Your task to perform on an android device: make emails show in primary in the gmail app Image 0: 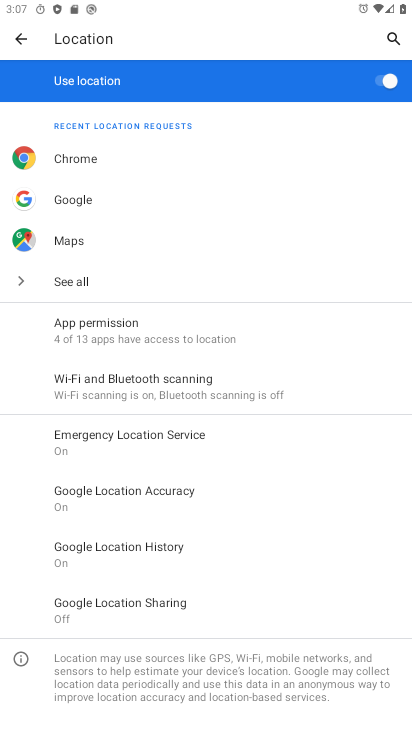
Step 0: press home button
Your task to perform on an android device: make emails show in primary in the gmail app Image 1: 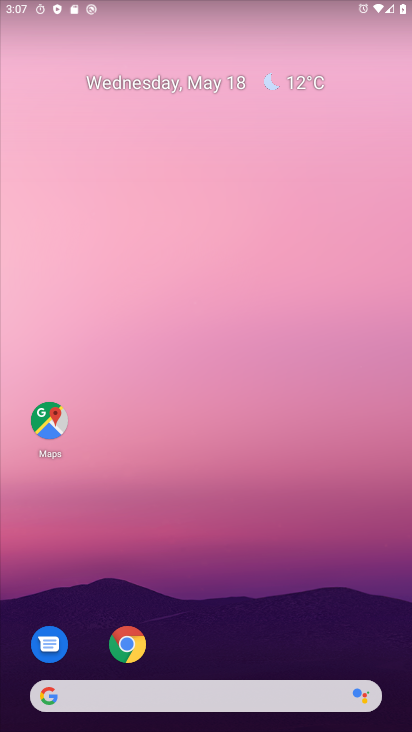
Step 1: drag from (396, 682) to (265, 137)
Your task to perform on an android device: make emails show in primary in the gmail app Image 2: 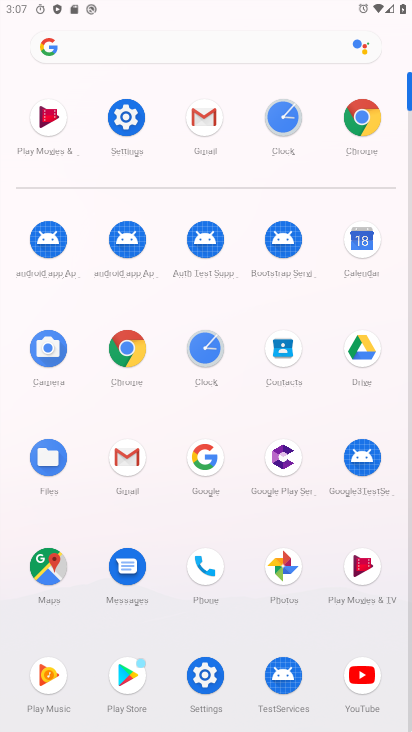
Step 2: click (203, 117)
Your task to perform on an android device: make emails show in primary in the gmail app Image 3: 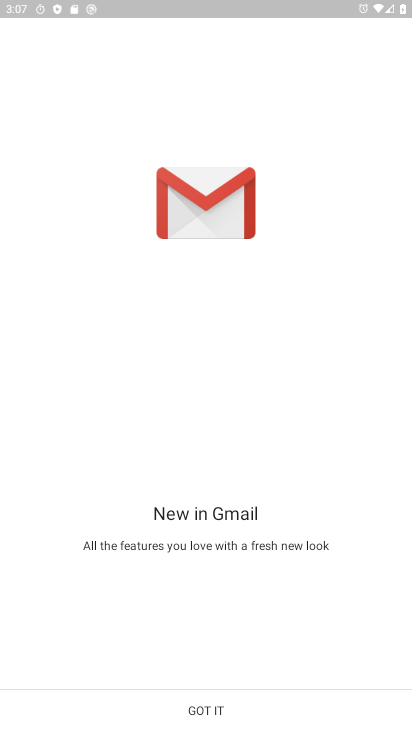
Step 3: click (204, 701)
Your task to perform on an android device: make emails show in primary in the gmail app Image 4: 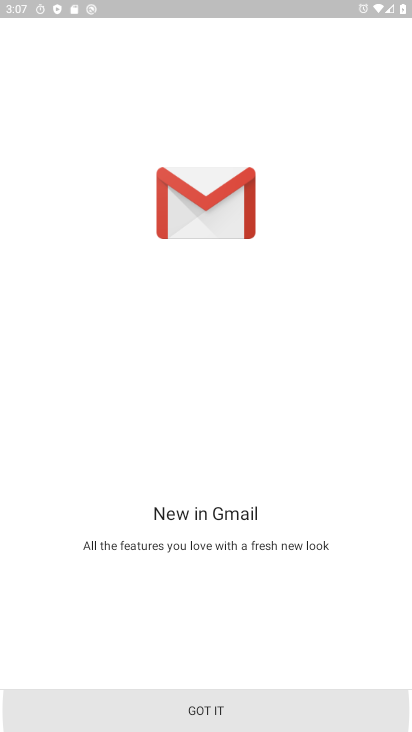
Step 4: click (204, 701)
Your task to perform on an android device: make emails show in primary in the gmail app Image 5: 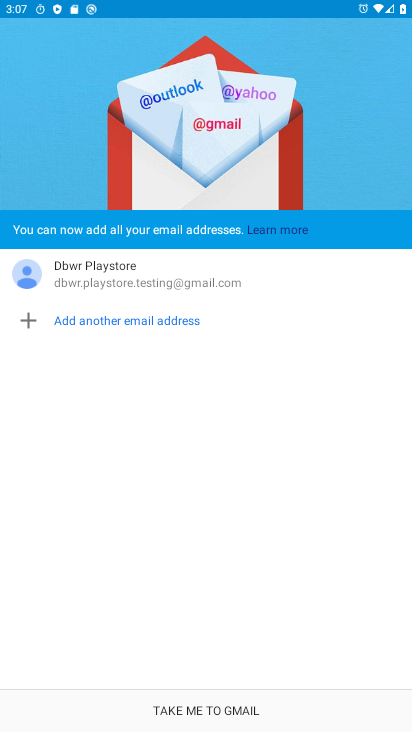
Step 5: click (204, 701)
Your task to perform on an android device: make emails show in primary in the gmail app Image 6: 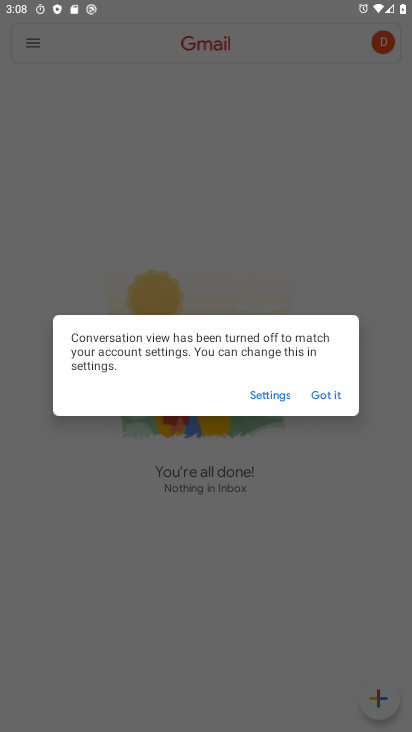
Step 6: click (314, 397)
Your task to perform on an android device: make emails show in primary in the gmail app Image 7: 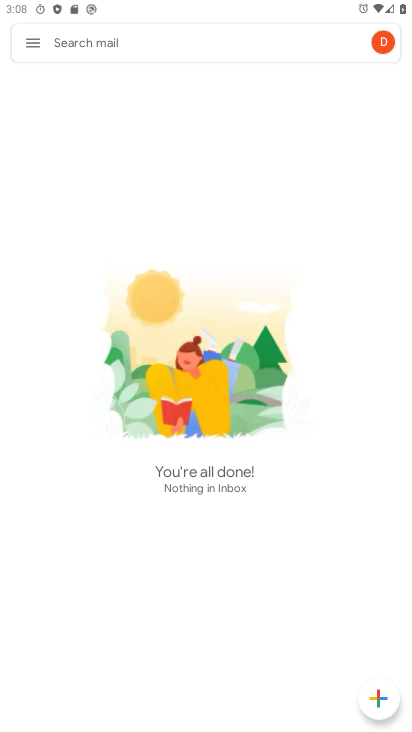
Step 7: drag from (401, 505) to (403, 73)
Your task to perform on an android device: make emails show in primary in the gmail app Image 8: 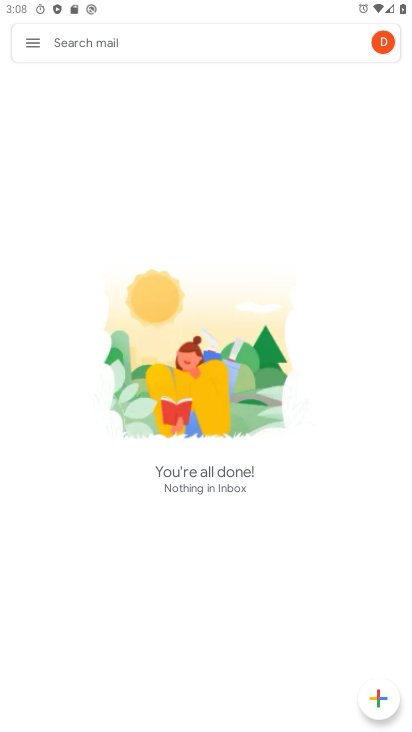
Step 8: click (33, 39)
Your task to perform on an android device: make emails show in primary in the gmail app Image 9: 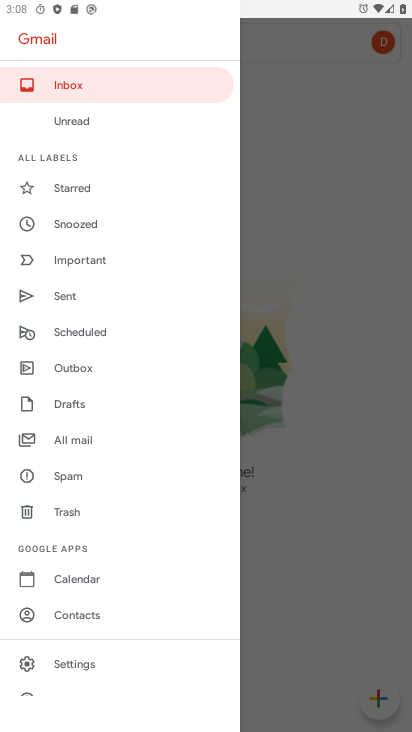
Step 9: click (54, 663)
Your task to perform on an android device: make emails show in primary in the gmail app Image 10: 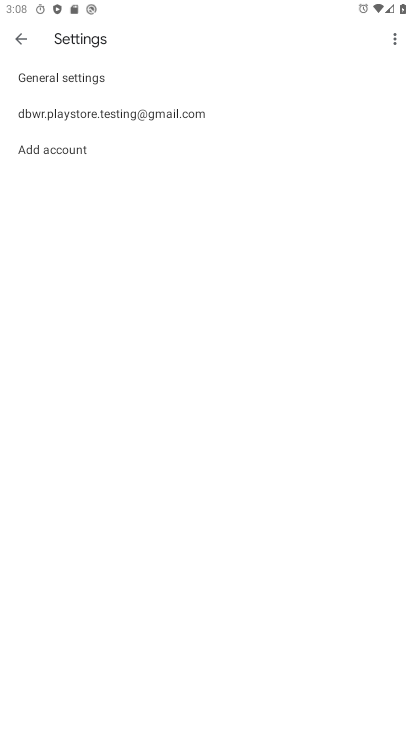
Step 10: click (75, 80)
Your task to perform on an android device: make emails show in primary in the gmail app Image 11: 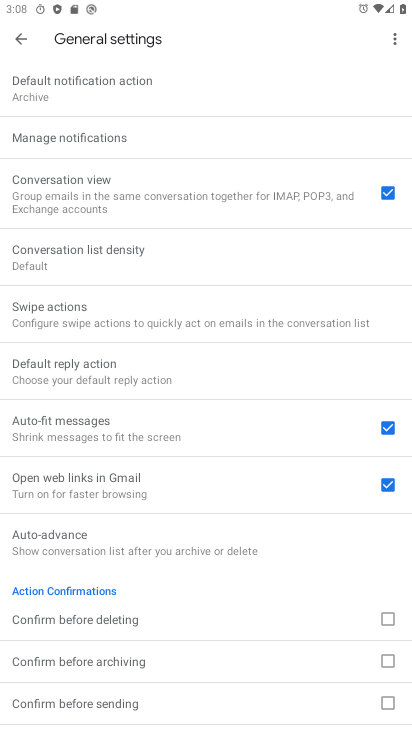
Step 11: click (8, 46)
Your task to perform on an android device: make emails show in primary in the gmail app Image 12: 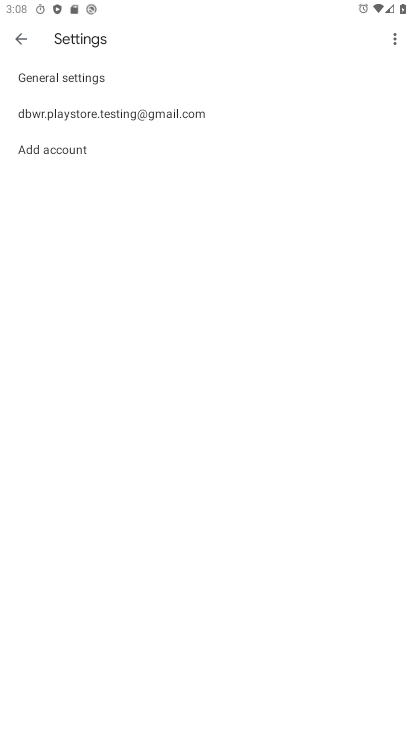
Step 12: click (62, 104)
Your task to perform on an android device: make emails show in primary in the gmail app Image 13: 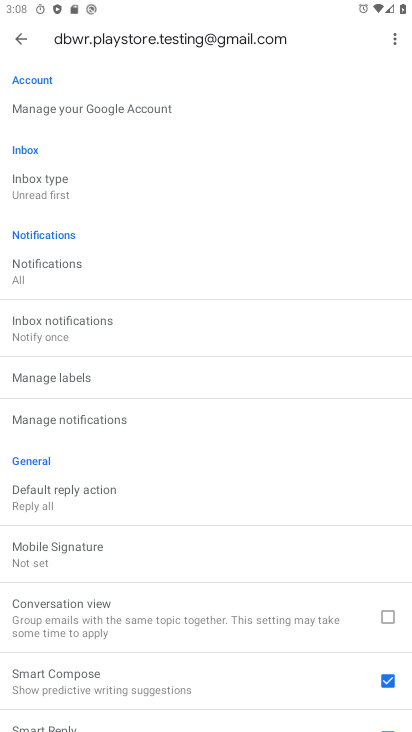
Step 13: click (46, 178)
Your task to perform on an android device: make emails show in primary in the gmail app Image 14: 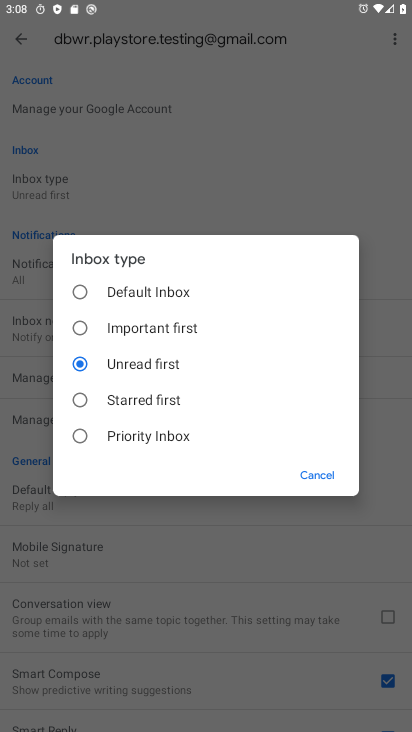
Step 14: click (81, 284)
Your task to perform on an android device: make emails show in primary in the gmail app Image 15: 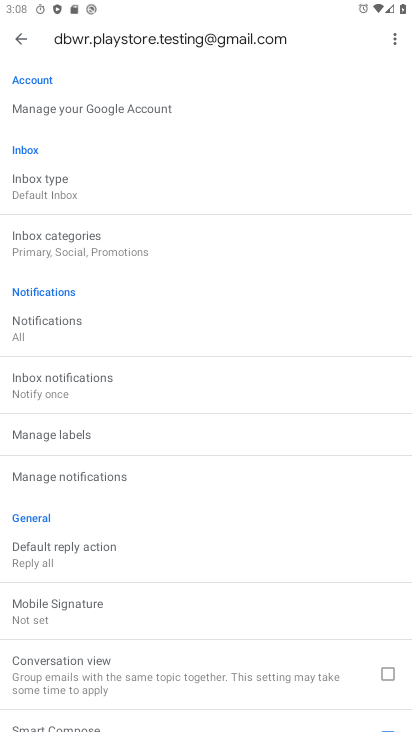
Step 15: click (81, 249)
Your task to perform on an android device: make emails show in primary in the gmail app Image 16: 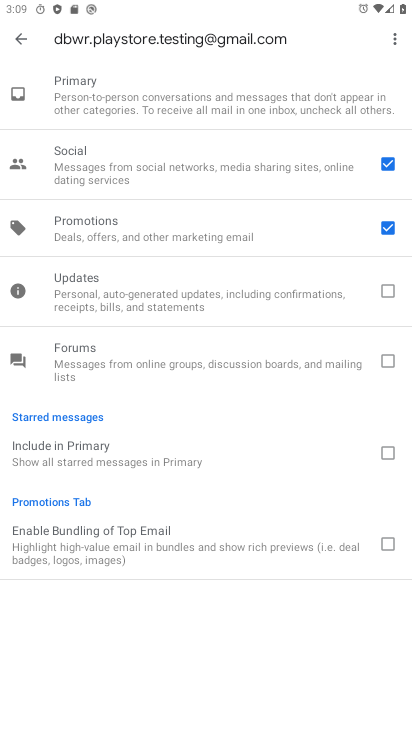
Step 16: click (388, 161)
Your task to perform on an android device: make emails show in primary in the gmail app Image 17: 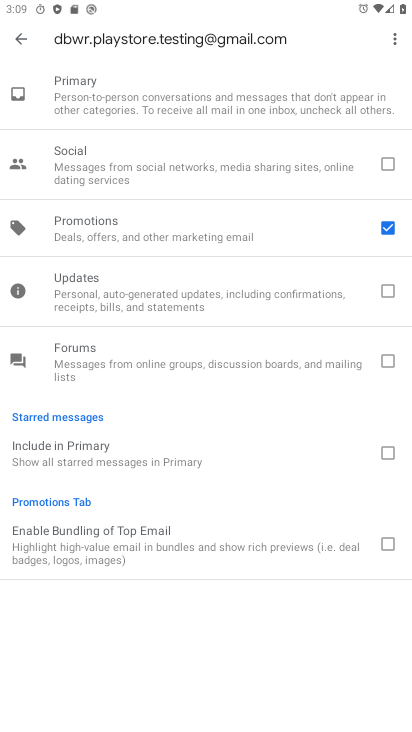
Step 17: click (385, 227)
Your task to perform on an android device: make emails show in primary in the gmail app Image 18: 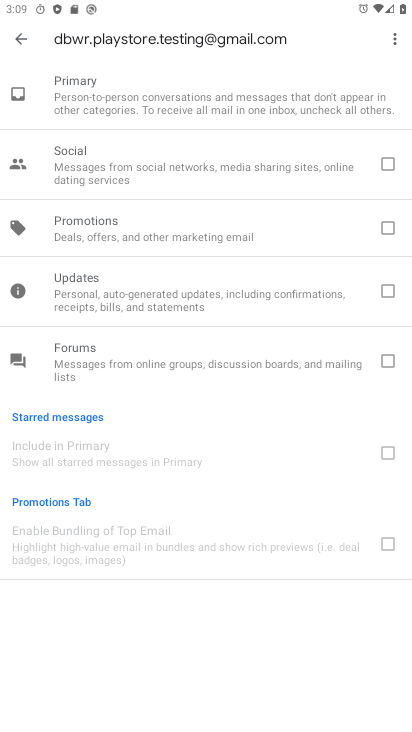
Step 18: task complete